Your task to perform on an android device: find photos in the google photos app Image 0: 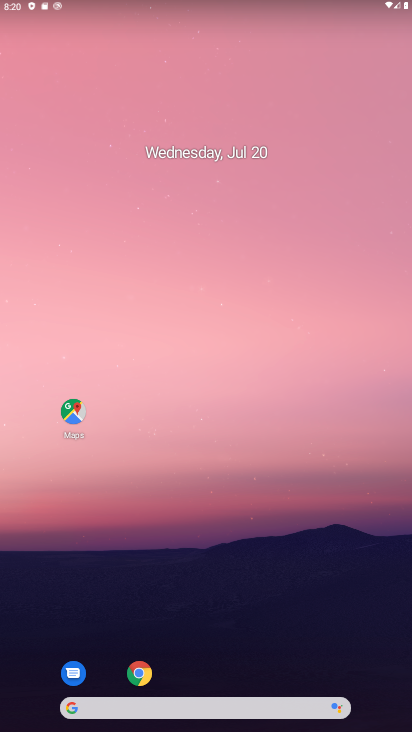
Step 0: drag from (237, 510) to (256, 310)
Your task to perform on an android device: find photos in the google photos app Image 1: 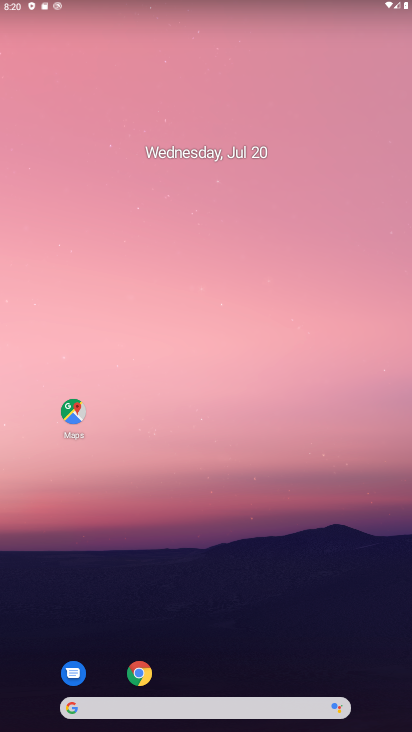
Step 1: drag from (215, 730) to (262, 221)
Your task to perform on an android device: find photos in the google photos app Image 2: 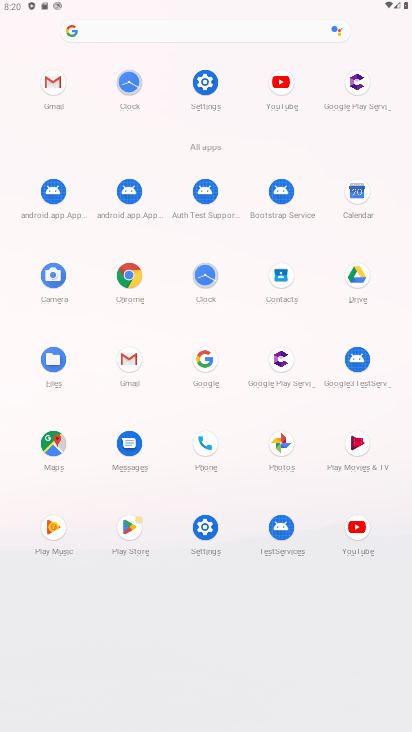
Step 2: click (278, 443)
Your task to perform on an android device: find photos in the google photos app Image 3: 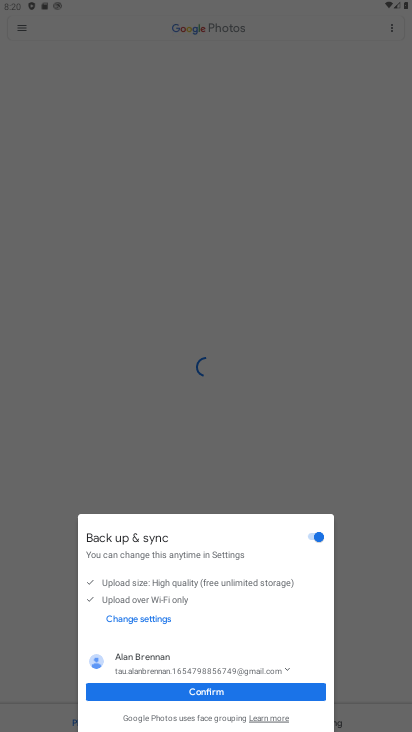
Step 3: click (213, 694)
Your task to perform on an android device: find photos in the google photos app Image 4: 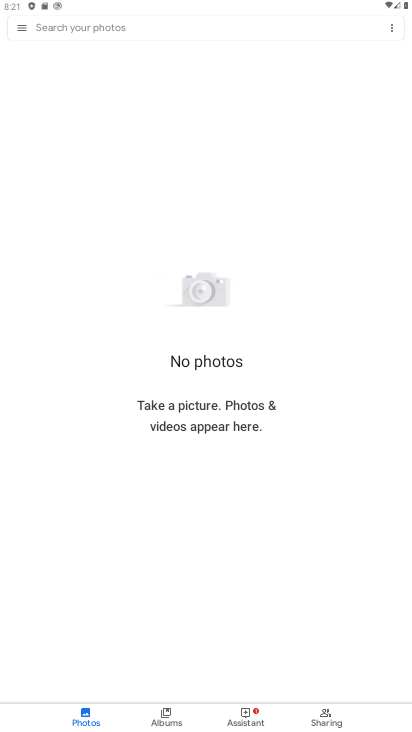
Step 4: task complete